Your task to perform on an android device: Open settings on Google Maps Image 0: 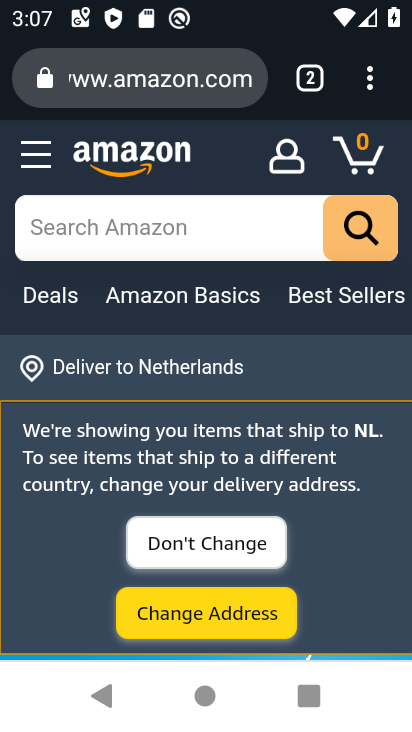
Step 0: press back button
Your task to perform on an android device: Open settings on Google Maps Image 1: 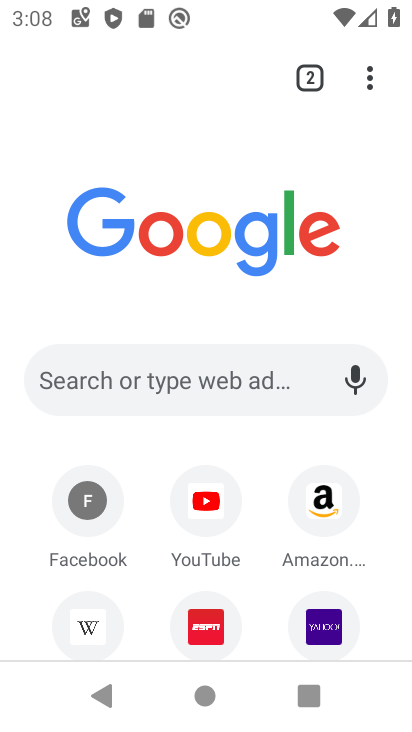
Step 1: press back button
Your task to perform on an android device: Open settings on Google Maps Image 2: 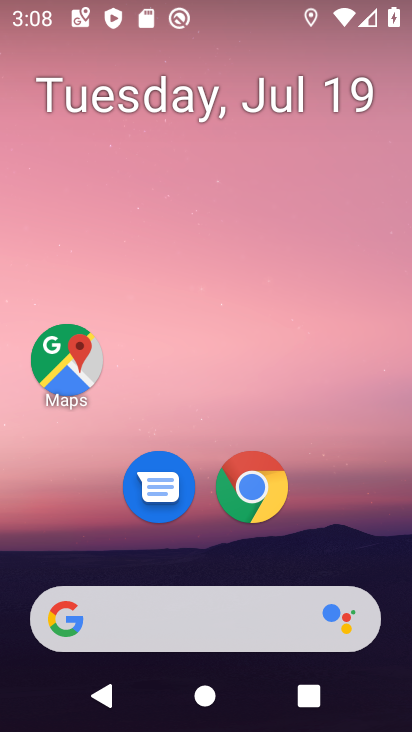
Step 2: click (82, 357)
Your task to perform on an android device: Open settings on Google Maps Image 3: 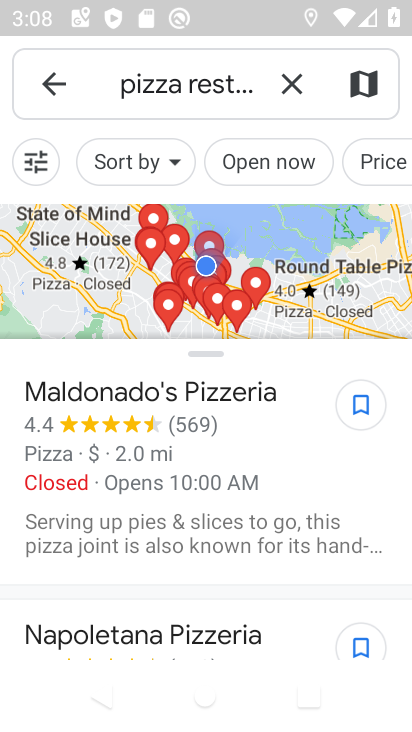
Step 3: task complete